Your task to perform on an android device: empty trash in google photos Image 0: 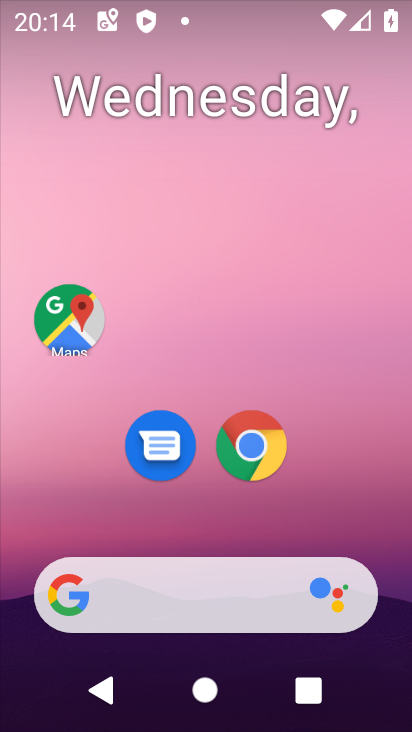
Step 0: drag from (302, 508) to (315, 347)
Your task to perform on an android device: empty trash in google photos Image 1: 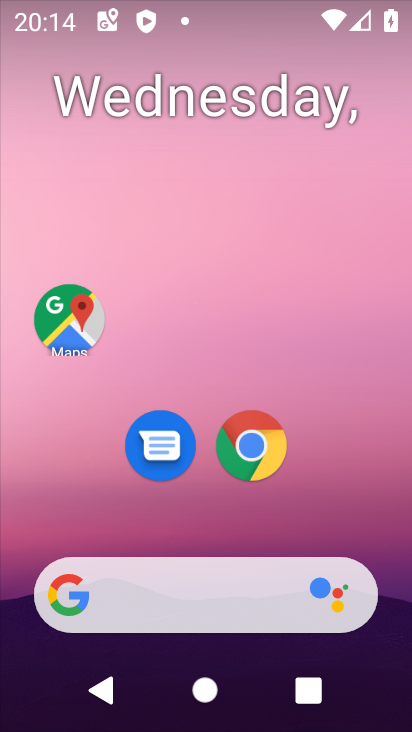
Step 1: drag from (331, 570) to (350, 103)
Your task to perform on an android device: empty trash in google photos Image 2: 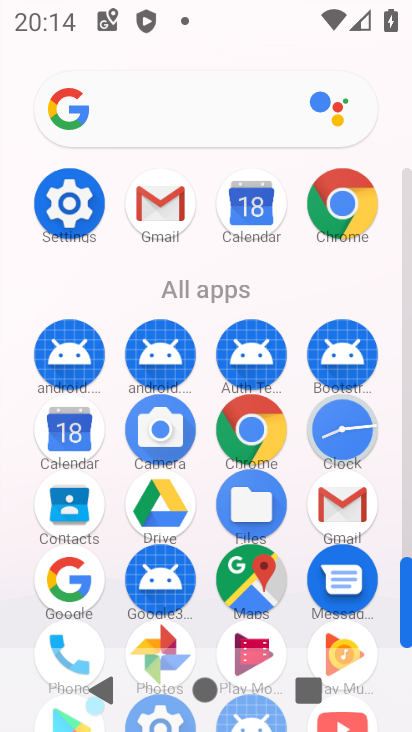
Step 2: drag from (222, 622) to (249, 401)
Your task to perform on an android device: empty trash in google photos Image 3: 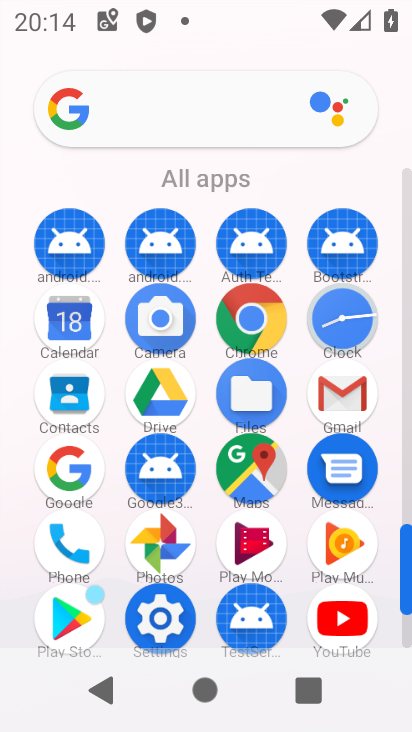
Step 3: click (163, 541)
Your task to perform on an android device: empty trash in google photos Image 4: 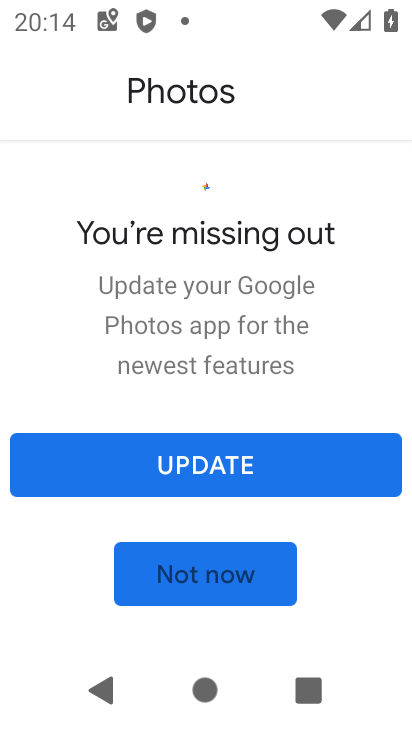
Step 4: click (217, 565)
Your task to perform on an android device: empty trash in google photos Image 5: 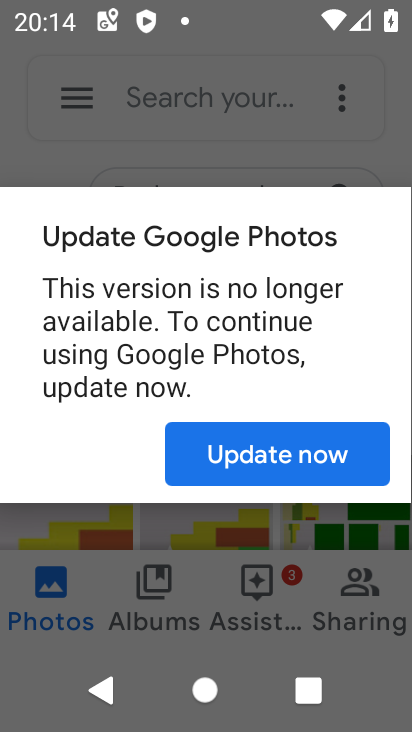
Step 5: click (238, 456)
Your task to perform on an android device: empty trash in google photos Image 6: 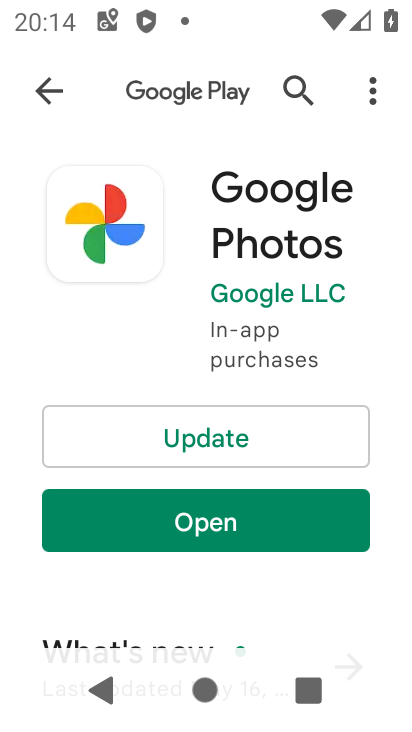
Step 6: press back button
Your task to perform on an android device: empty trash in google photos Image 7: 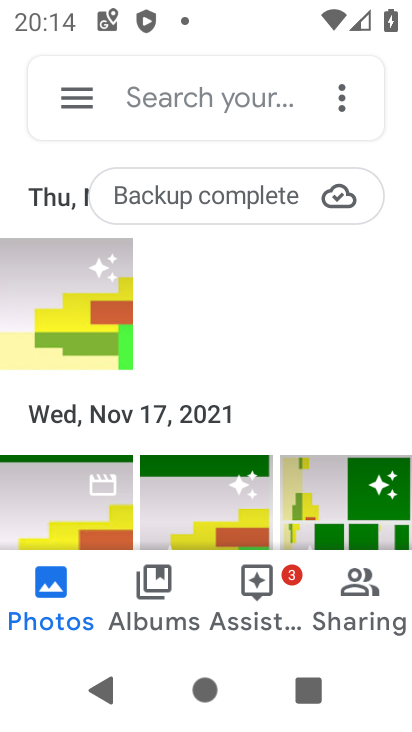
Step 7: click (66, 87)
Your task to perform on an android device: empty trash in google photos Image 8: 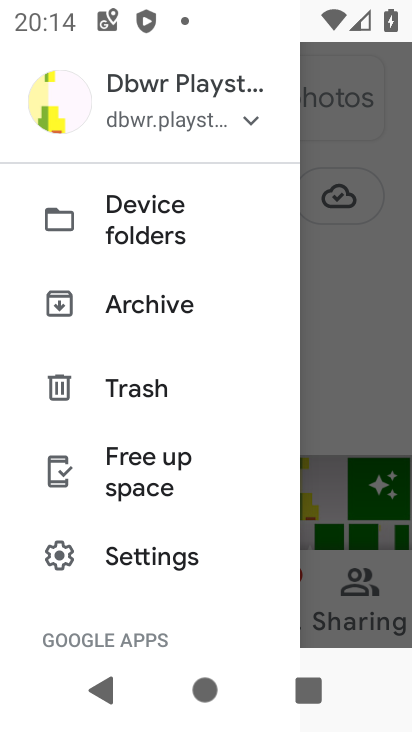
Step 8: click (163, 396)
Your task to perform on an android device: empty trash in google photos Image 9: 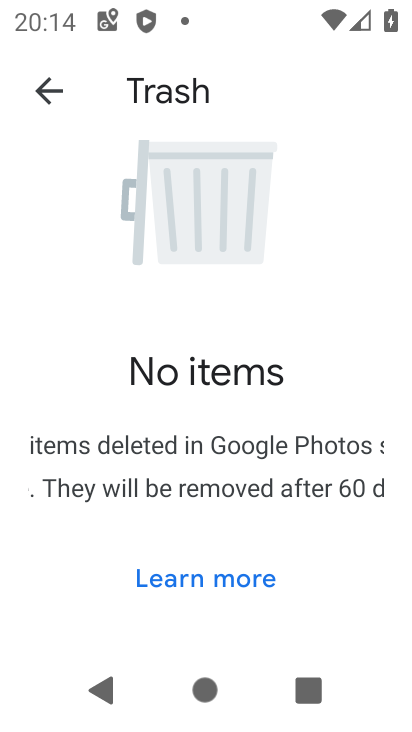
Step 9: task complete